Your task to perform on an android device: turn off priority inbox in the gmail app Image 0: 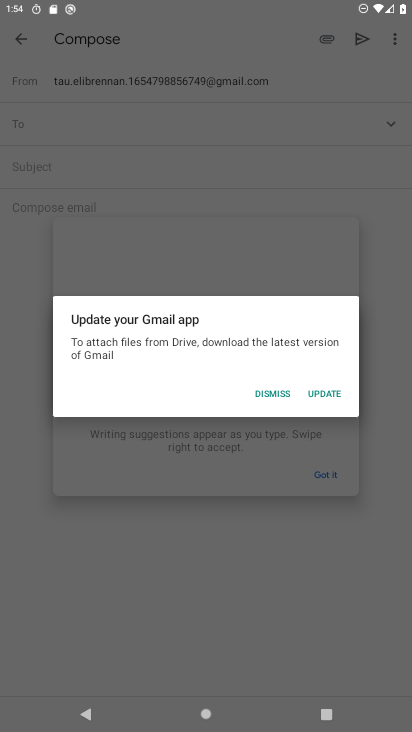
Step 0: press home button
Your task to perform on an android device: turn off priority inbox in the gmail app Image 1: 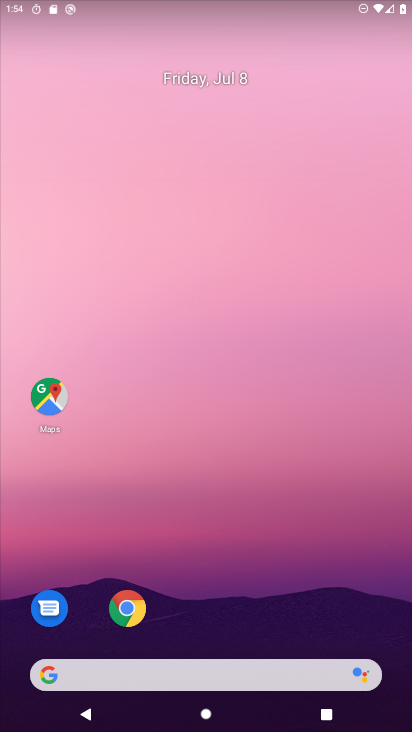
Step 1: drag from (247, 713) to (287, 272)
Your task to perform on an android device: turn off priority inbox in the gmail app Image 2: 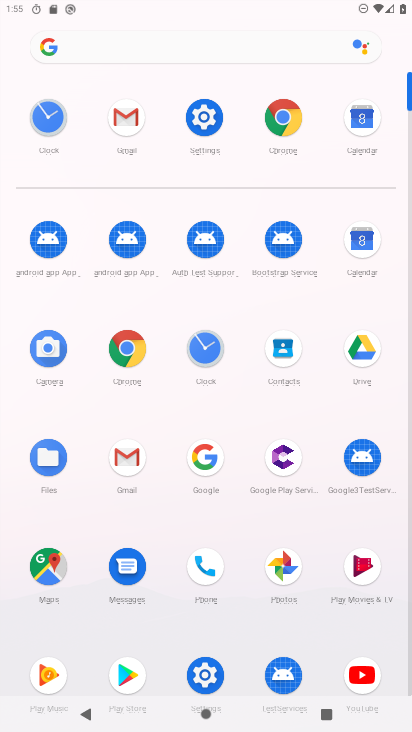
Step 2: click (133, 456)
Your task to perform on an android device: turn off priority inbox in the gmail app Image 3: 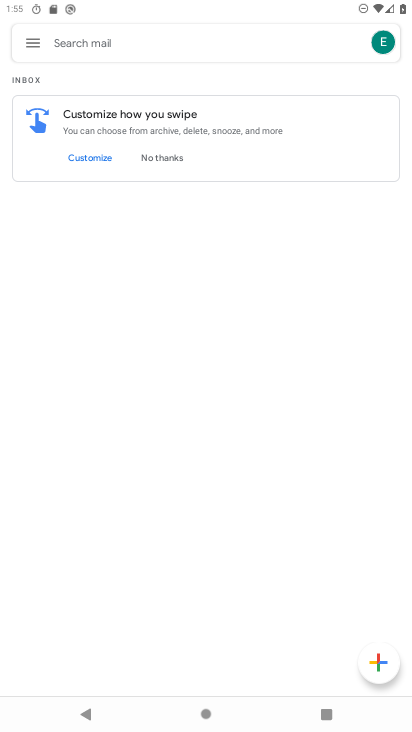
Step 3: click (26, 48)
Your task to perform on an android device: turn off priority inbox in the gmail app Image 4: 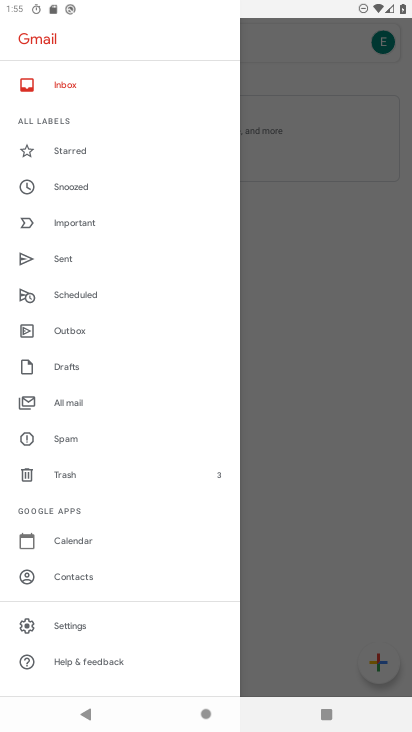
Step 4: click (72, 623)
Your task to perform on an android device: turn off priority inbox in the gmail app Image 5: 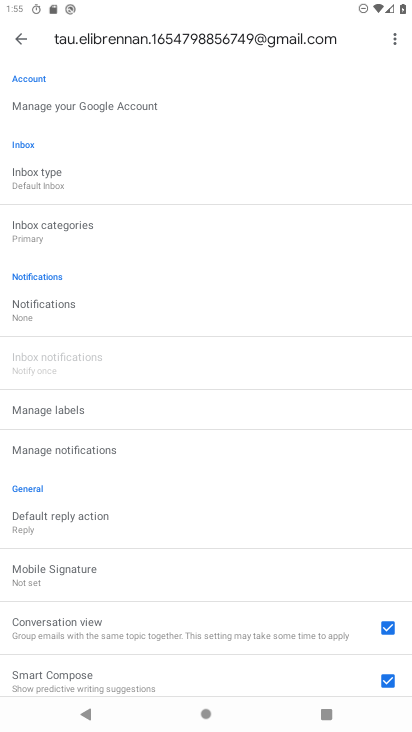
Step 5: click (32, 176)
Your task to perform on an android device: turn off priority inbox in the gmail app Image 6: 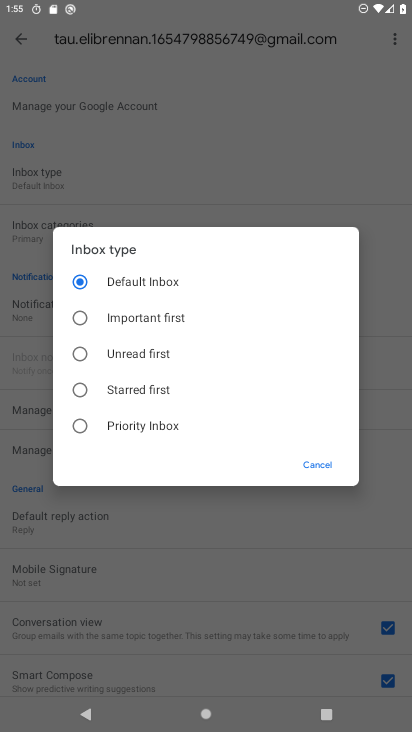
Step 6: task complete